Your task to perform on an android device: choose inbox layout in the gmail app Image 0: 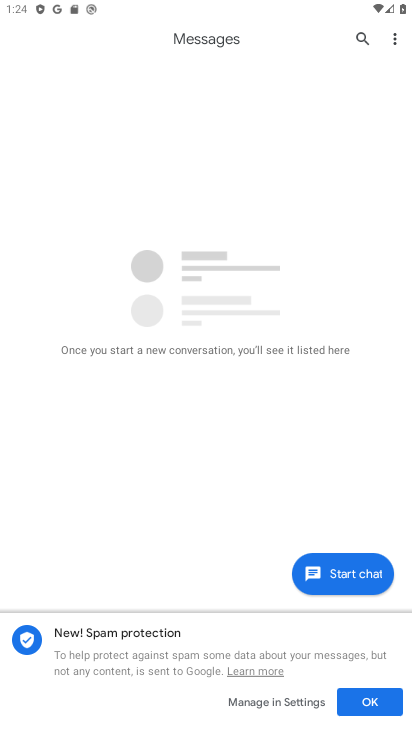
Step 0: press home button
Your task to perform on an android device: choose inbox layout in the gmail app Image 1: 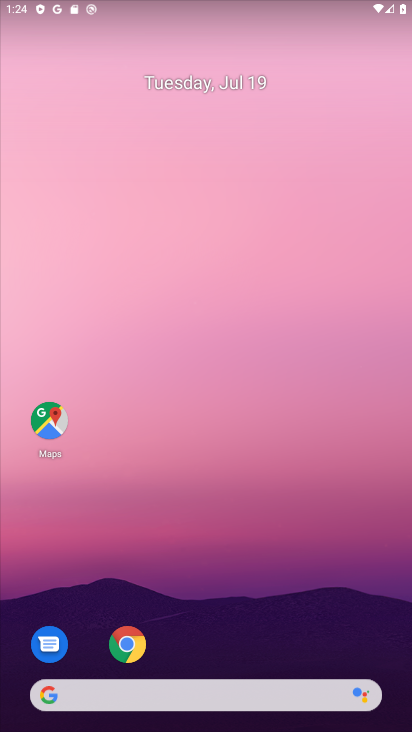
Step 1: drag from (219, 629) to (237, 226)
Your task to perform on an android device: choose inbox layout in the gmail app Image 2: 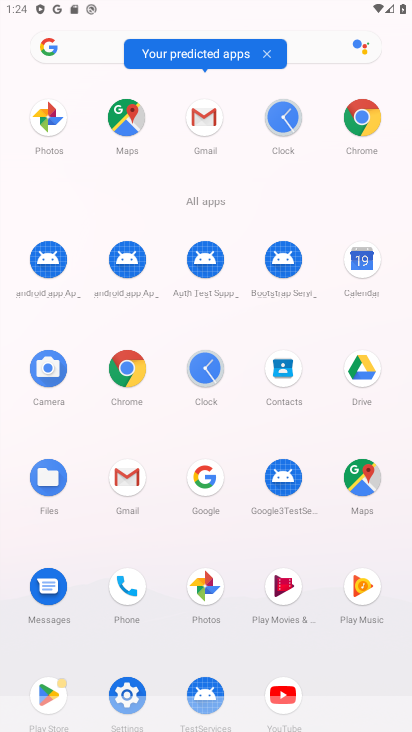
Step 2: click (125, 494)
Your task to perform on an android device: choose inbox layout in the gmail app Image 3: 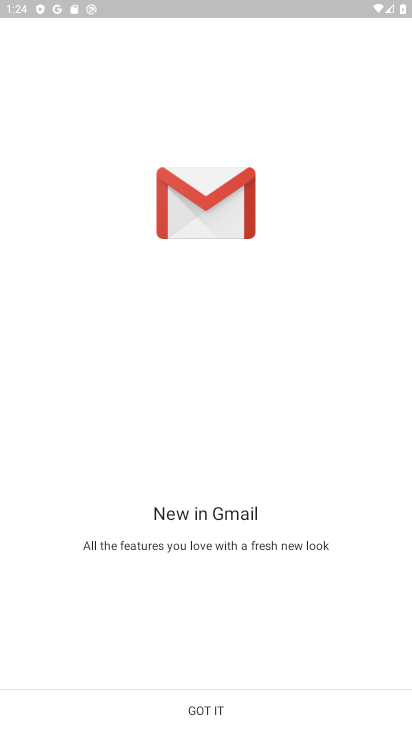
Step 3: click (225, 717)
Your task to perform on an android device: choose inbox layout in the gmail app Image 4: 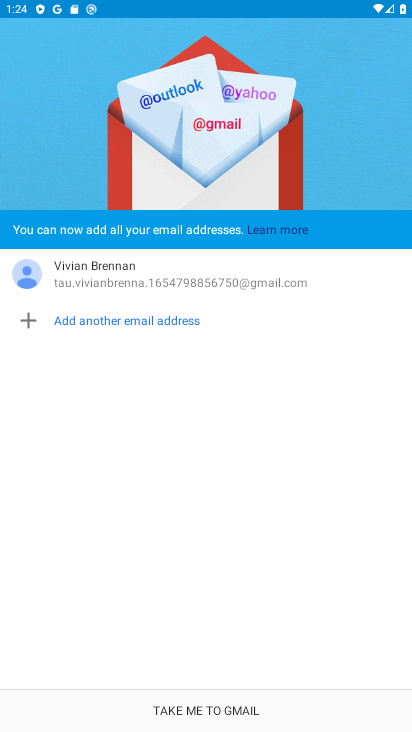
Step 4: click (244, 707)
Your task to perform on an android device: choose inbox layout in the gmail app Image 5: 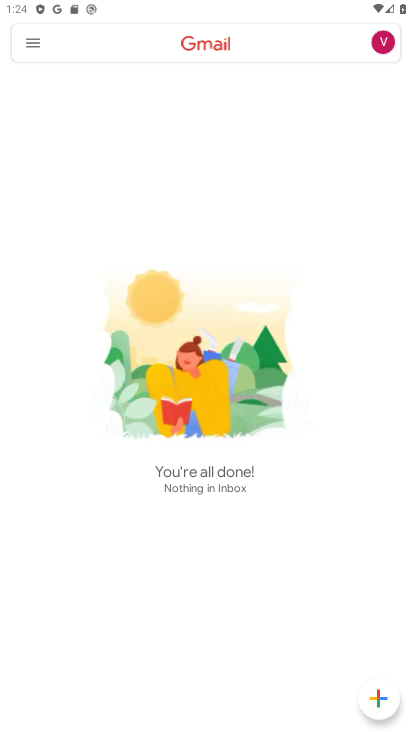
Step 5: click (49, 49)
Your task to perform on an android device: choose inbox layout in the gmail app Image 6: 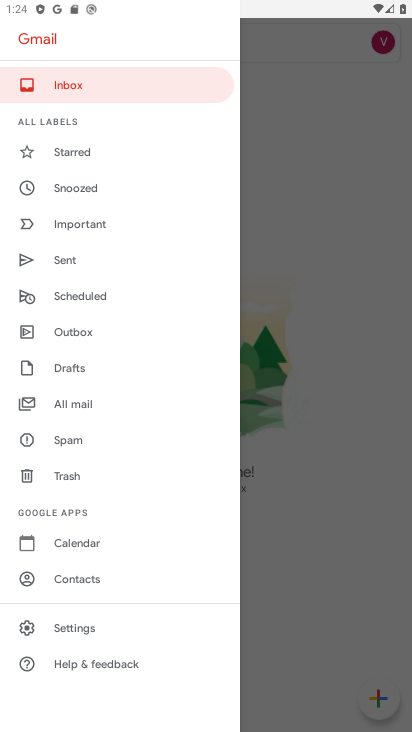
Step 6: click (104, 627)
Your task to perform on an android device: choose inbox layout in the gmail app Image 7: 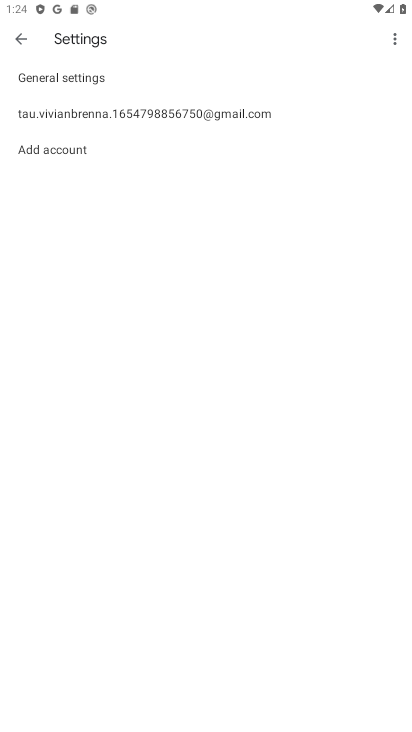
Step 7: click (219, 106)
Your task to perform on an android device: choose inbox layout in the gmail app Image 8: 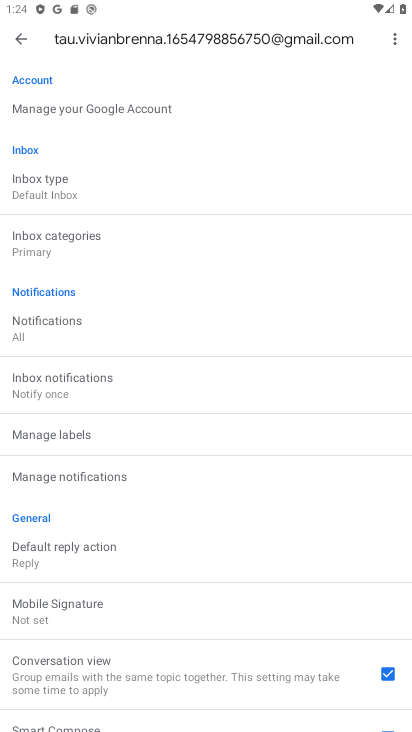
Step 8: click (79, 193)
Your task to perform on an android device: choose inbox layout in the gmail app Image 9: 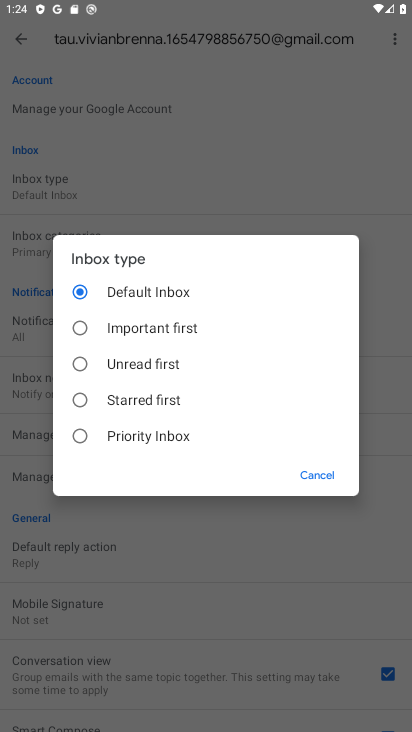
Step 9: click (109, 404)
Your task to perform on an android device: choose inbox layout in the gmail app Image 10: 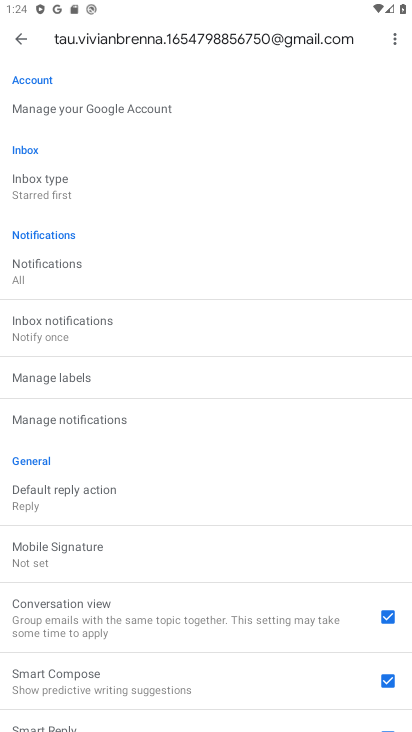
Step 10: task complete